Your task to perform on an android device: check out phone information Image 0: 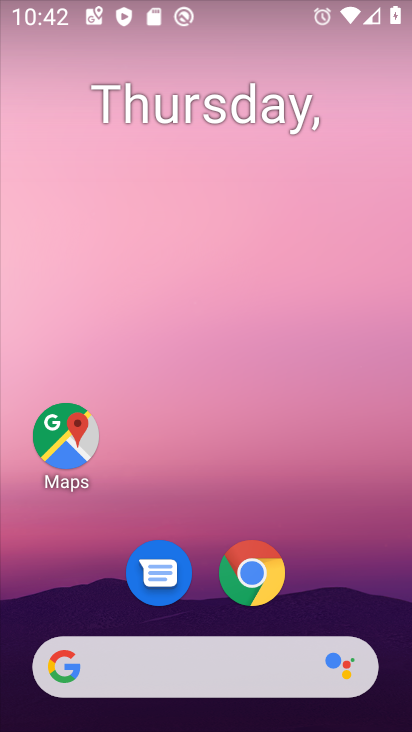
Step 0: drag from (334, 545) to (342, 129)
Your task to perform on an android device: check out phone information Image 1: 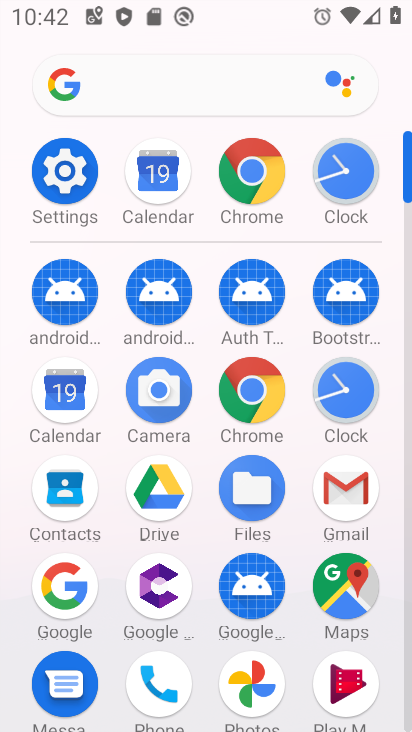
Step 1: click (157, 672)
Your task to perform on an android device: check out phone information Image 2: 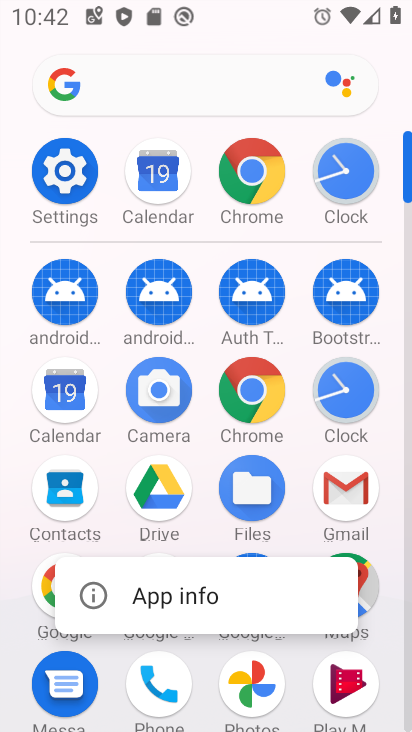
Step 2: click (179, 608)
Your task to perform on an android device: check out phone information Image 3: 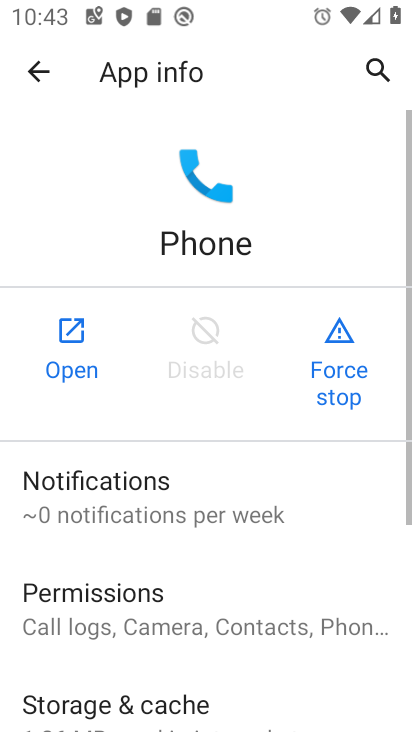
Step 3: task complete